Your task to perform on an android device: turn off translation in the chrome app Image 0: 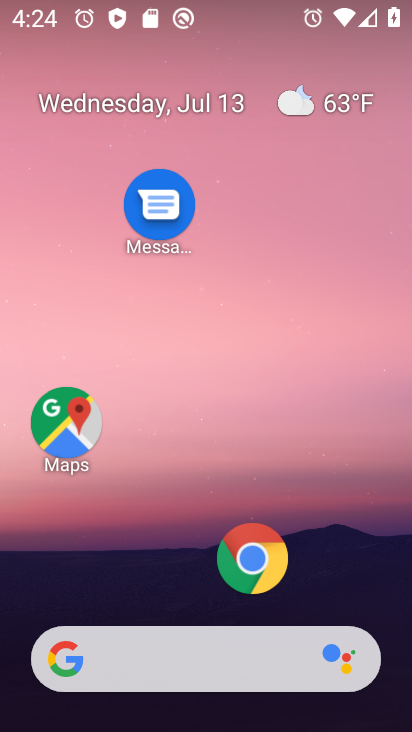
Step 0: drag from (122, 589) to (169, 224)
Your task to perform on an android device: turn off translation in the chrome app Image 1: 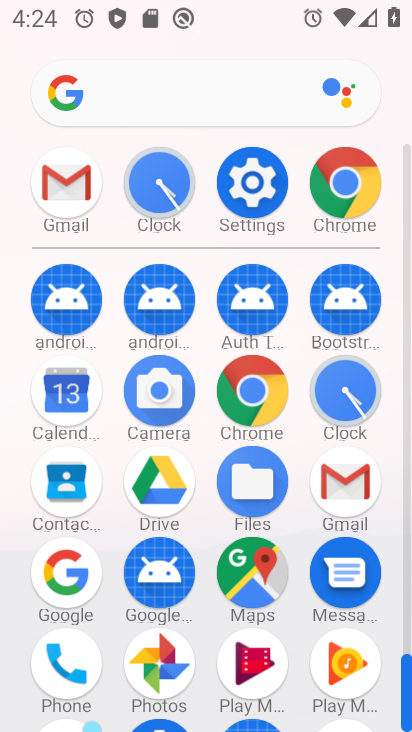
Step 1: click (331, 189)
Your task to perform on an android device: turn off translation in the chrome app Image 2: 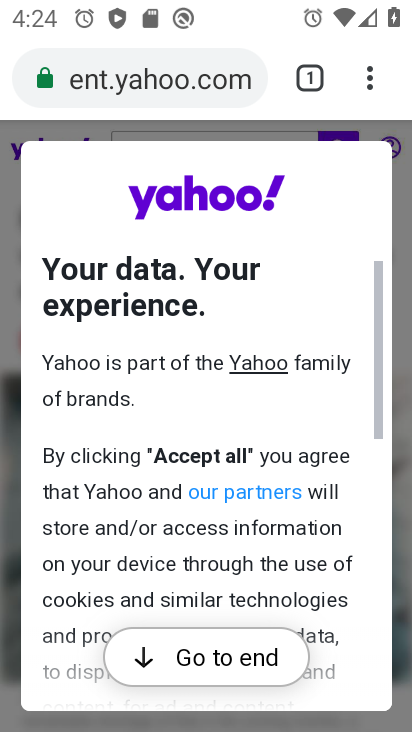
Step 2: click (366, 82)
Your task to perform on an android device: turn off translation in the chrome app Image 3: 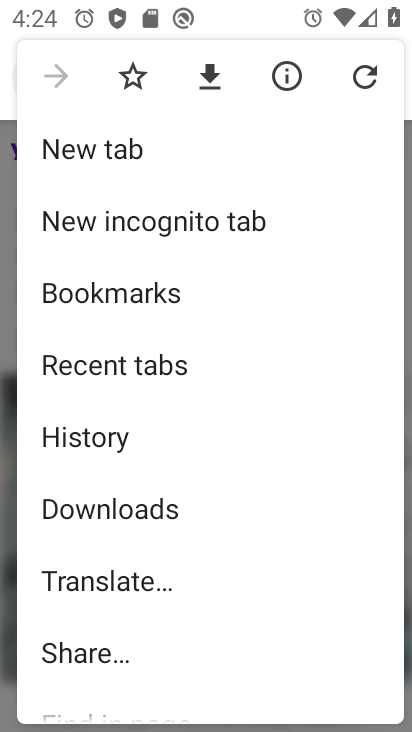
Step 3: drag from (97, 659) to (148, 263)
Your task to perform on an android device: turn off translation in the chrome app Image 4: 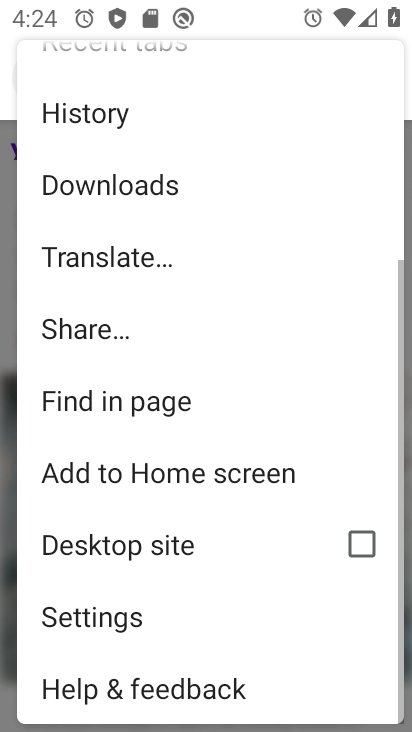
Step 4: click (113, 621)
Your task to perform on an android device: turn off translation in the chrome app Image 5: 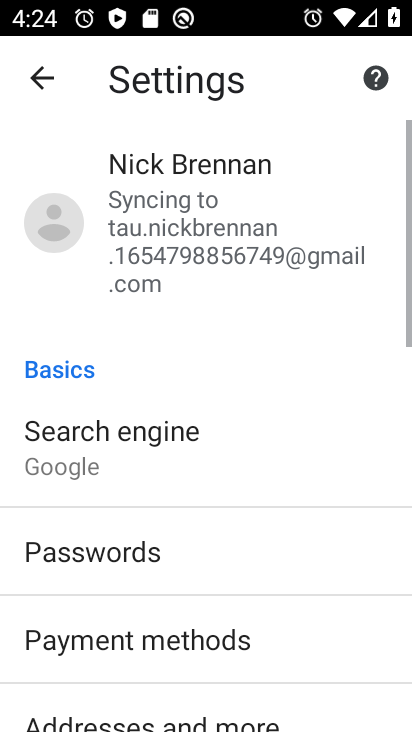
Step 5: drag from (102, 702) to (102, 315)
Your task to perform on an android device: turn off translation in the chrome app Image 6: 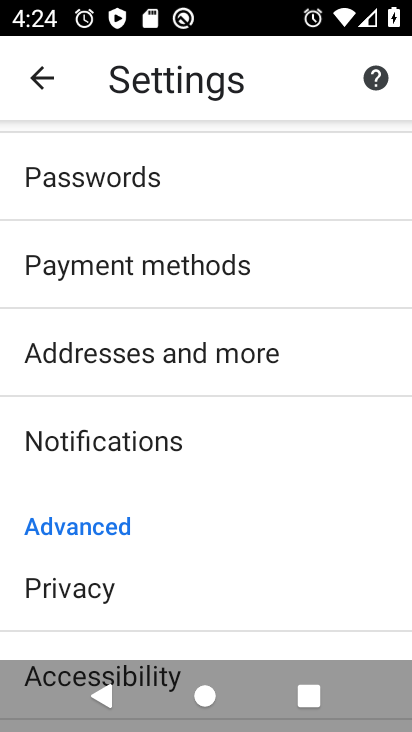
Step 6: drag from (115, 608) to (104, 287)
Your task to perform on an android device: turn off translation in the chrome app Image 7: 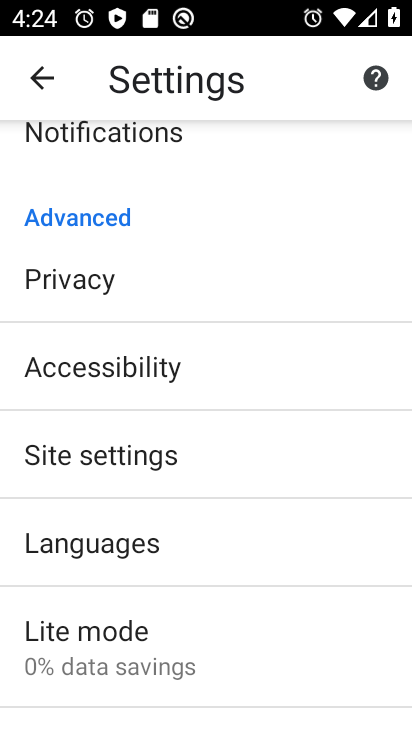
Step 7: click (81, 549)
Your task to perform on an android device: turn off translation in the chrome app Image 8: 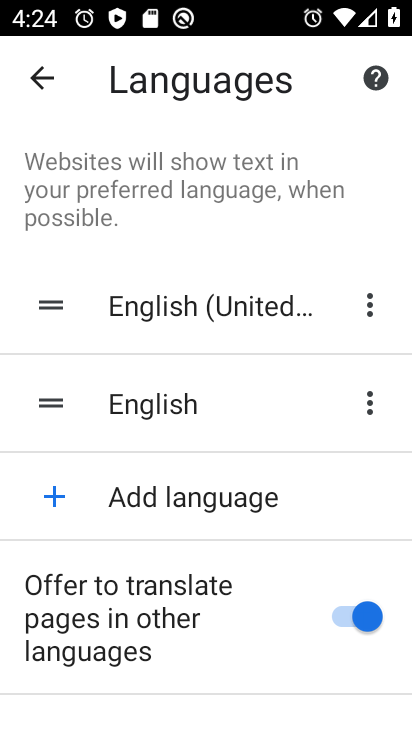
Step 8: click (339, 625)
Your task to perform on an android device: turn off translation in the chrome app Image 9: 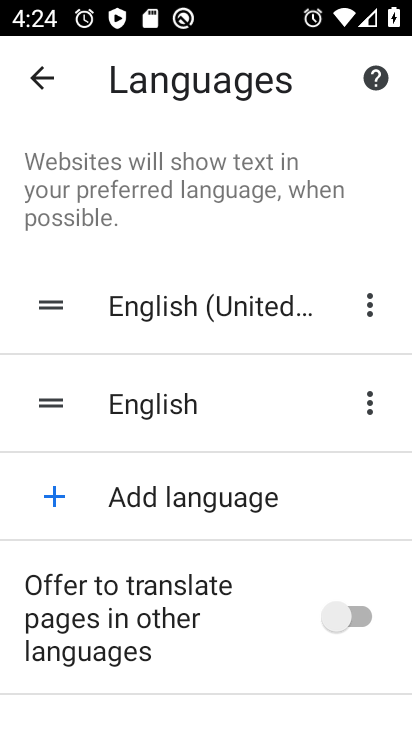
Step 9: task complete